Your task to perform on an android device: delete location history Image 0: 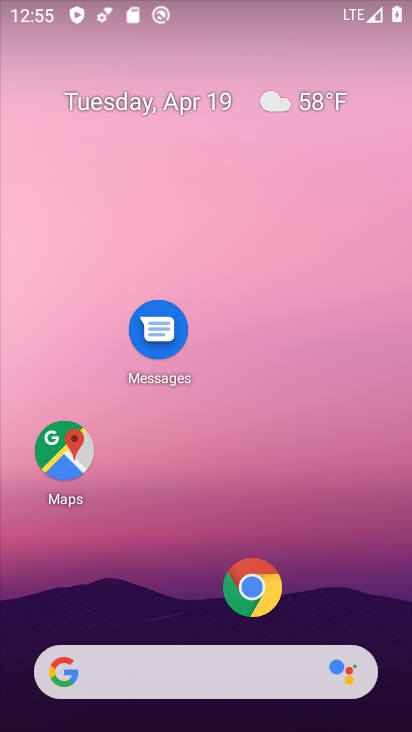
Step 0: drag from (180, 534) to (243, 94)
Your task to perform on an android device: delete location history Image 1: 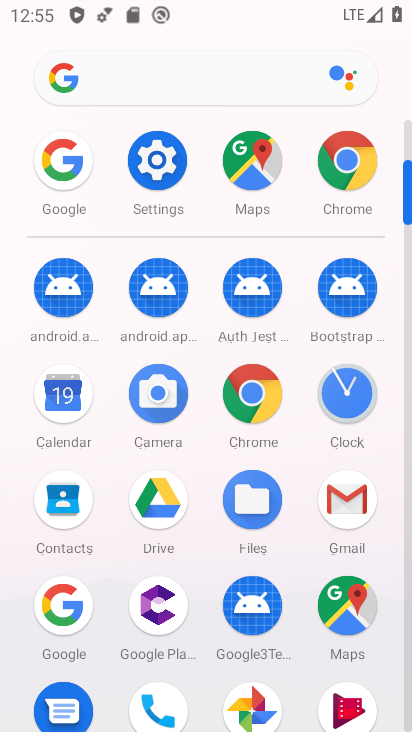
Step 1: click (157, 157)
Your task to perform on an android device: delete location history Image 2: 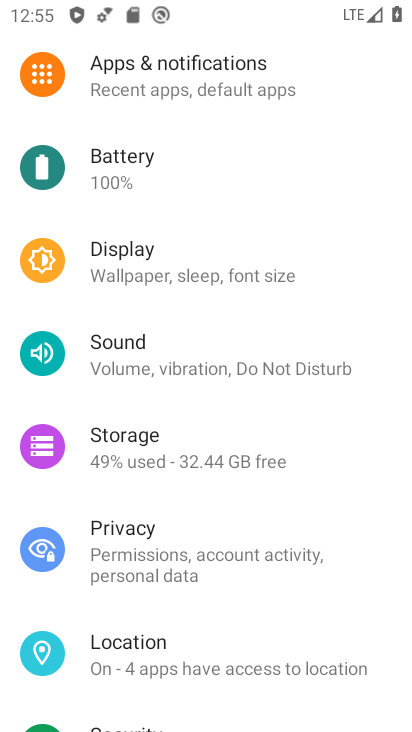
Step 2: click (168, 674)
Your task to perform on an android device: delete location history Image 3: 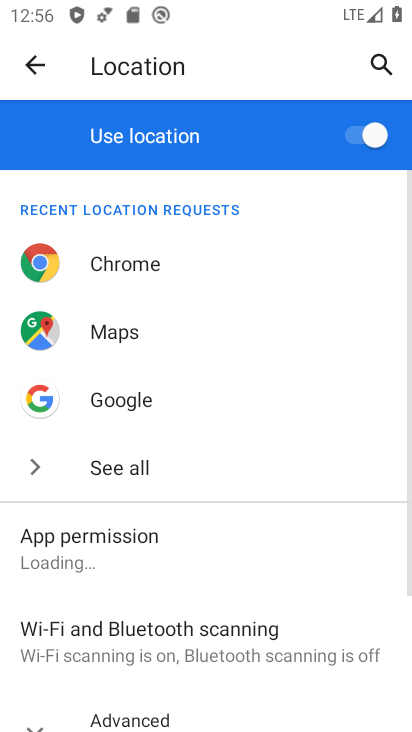
Step 3: drag from (216, 590) to (230, 225)
Your task to perform on an android device: delete location history Image 4: 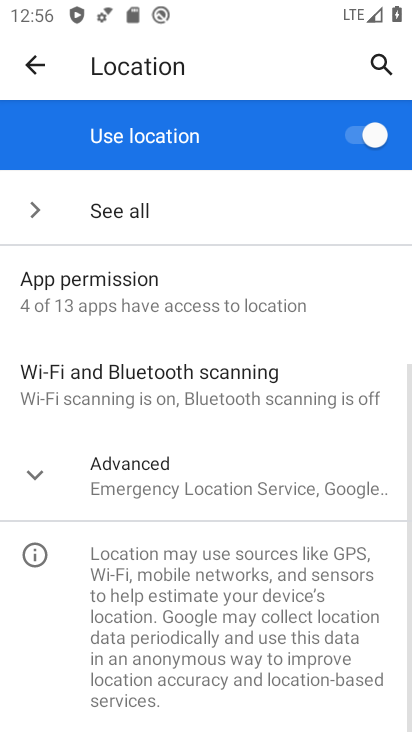
Step 4: click (118, 476)
Your task to perform on an android device: delete location history Image 5: 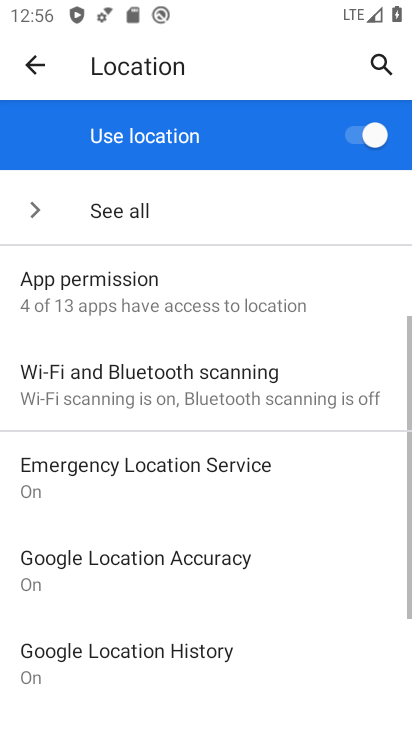
Step 5: drag from (220, 594) to (216, 485)
Your task to perform on an android device: delete location history Image 6: 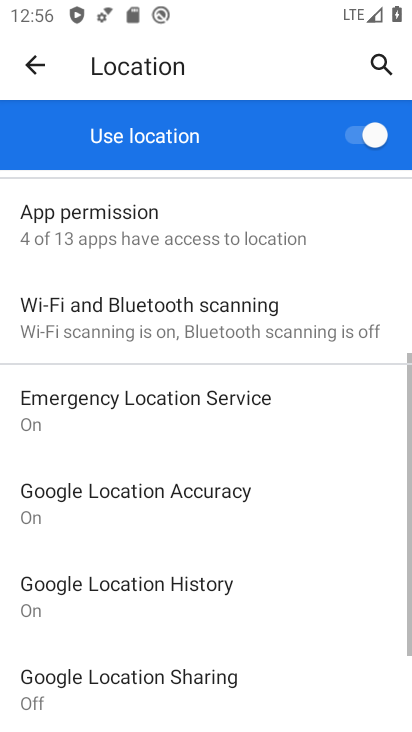
Step 6: click (129, 593)
Your task to perform on an android device: delete location history Image 7: 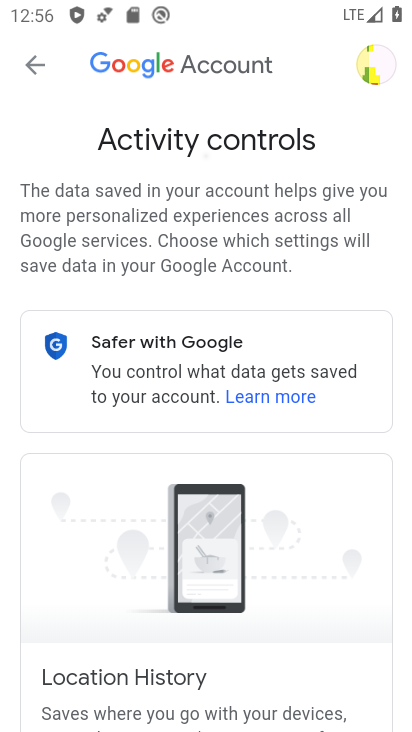
Step 7: drag from (122, 507) to (102, 88)
Your task to perform on an android device: delete location history Image 8: 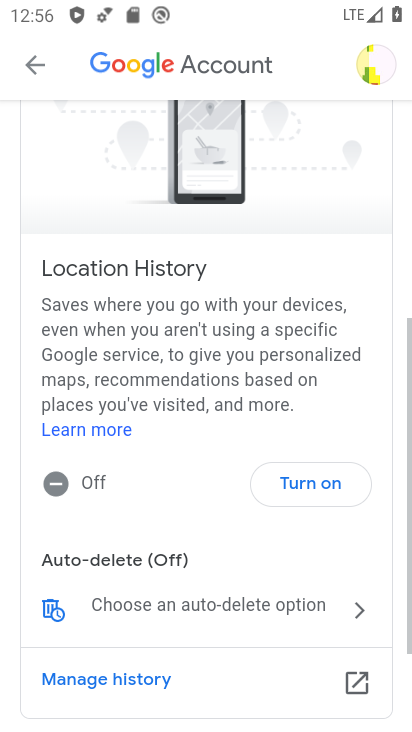
Step 8: drag from (161, 635) to (170, 497)
Your task to perform on an android device: delete location history Image 9: 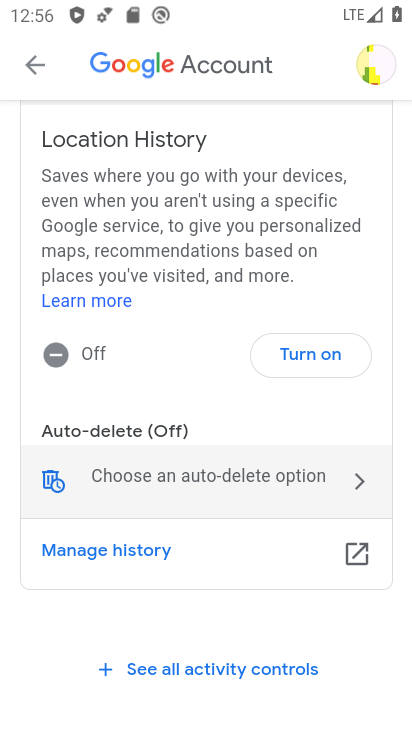
Step 9: click (49, 481)
Your task to perform on an android device: delete location history Image 10: 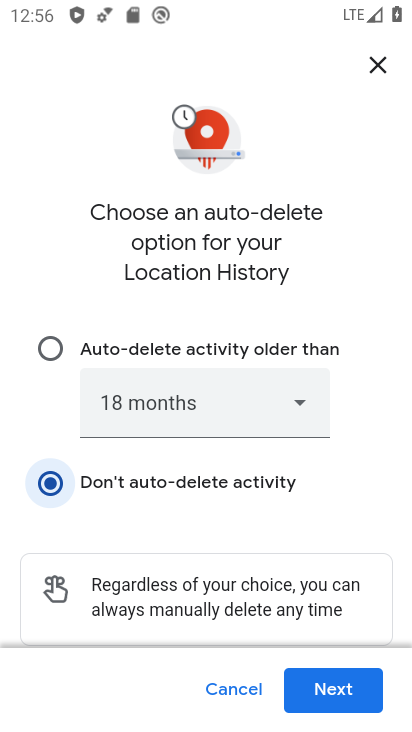
Step 10: click (330, 689)
Your task to perform on an android device: delete location history Image 11: 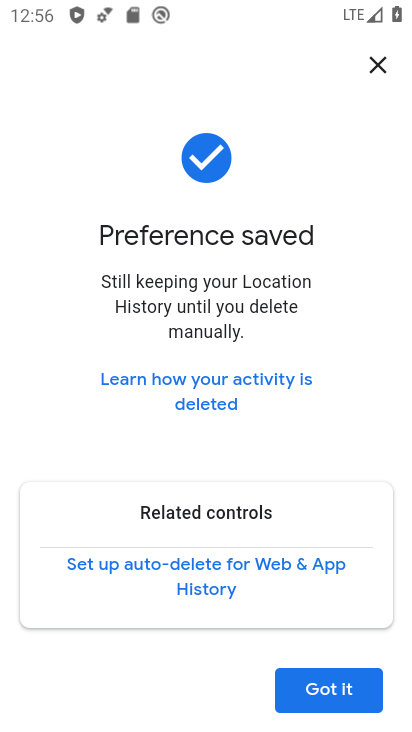
Step 11: click (332, 689)
Your task to perform on an android device: delete location history Image 12: 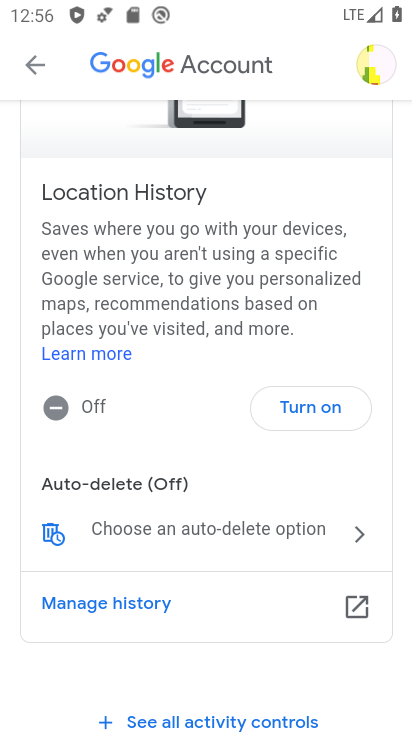
Step 12: task complete